Your task to perform on an android device: Open the calendar app, open the side menu, and click the "Day" option Image 0: 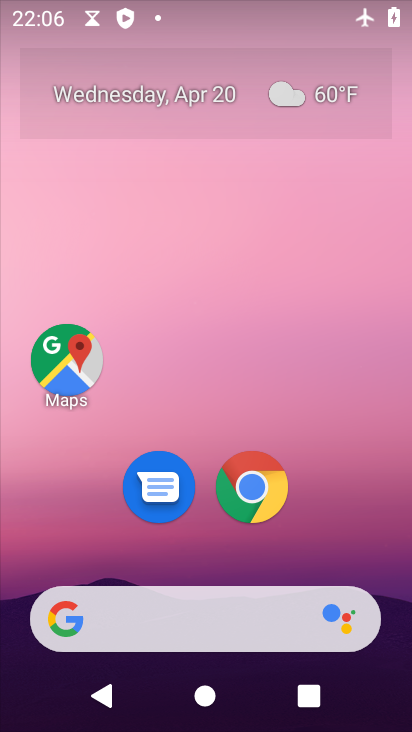
Step 0: drag from (61, 446) to (200, 183)
Your task to perform on an android device: Open the calendar app, open the side menu, and click the "Day" option Image 1: 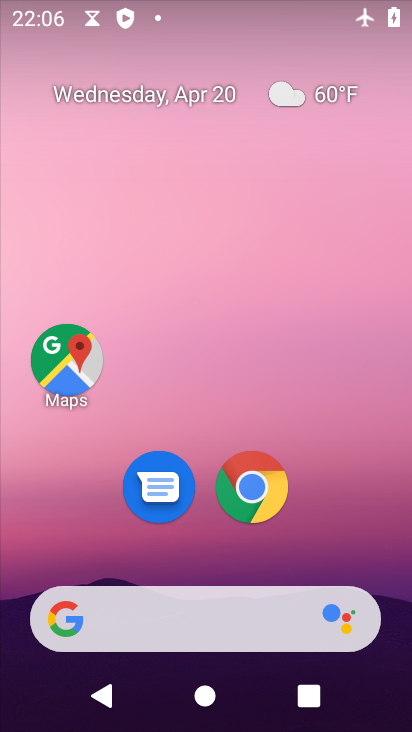
Step 1: drag from (70, 544) to (264, 239)
Your task to perform on an android device: Open the calendar app, open the side menu, and click the "Day" option Image 2: 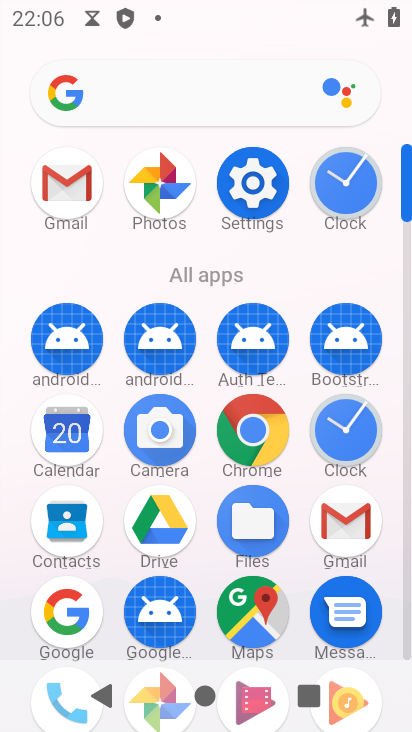
Step 2: click (67, 443)
Your task to perform on an android device: Open the calendar app, open the side menu, and click the "Day" option Image 3: 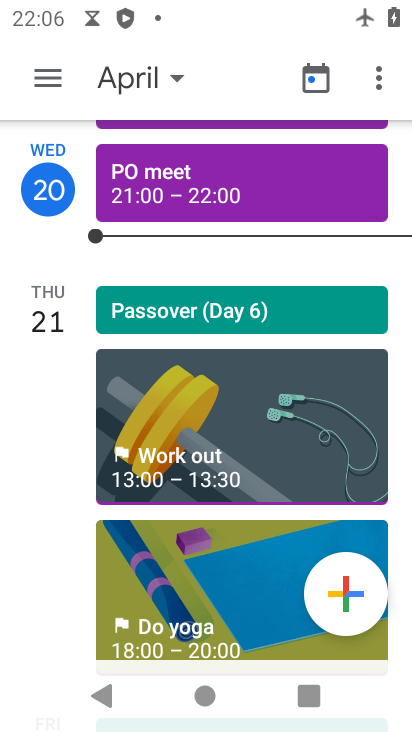
Step 3: click (37, 73)
Your task to perform on an android device: Open the calendar app, open the side menu, and click the "Day" option Image 4: 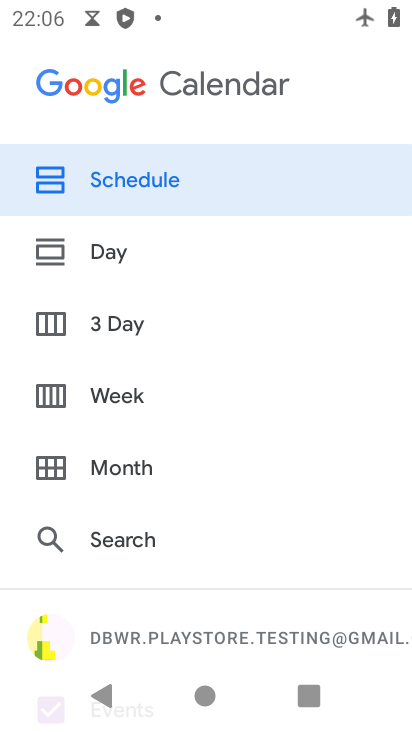
Step 4: click (126, 246)
Your task to perform on an android device: Open the calendar app, open the side menu, and click the "Day" option Image 5: 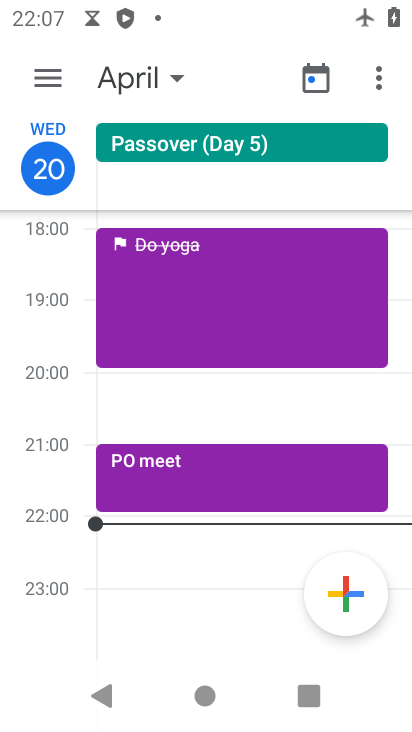
Step 5: task complete